Your task to perform on an android device: Open maps Image 0: 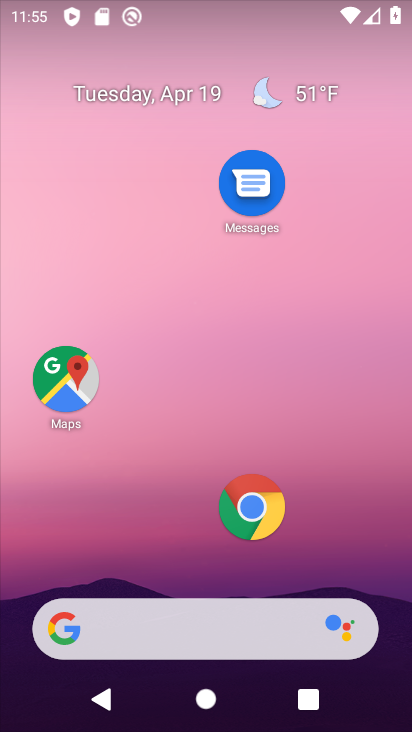
Step 0: click (65, 386)
Your task to perform on an android device: Open maps Image 1: 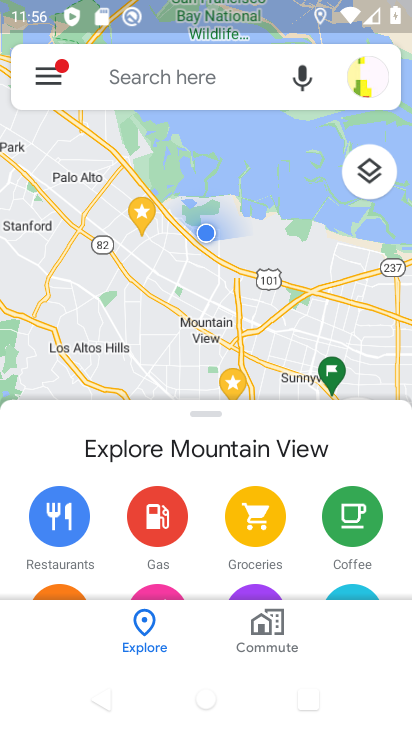
Step 1: task complete